Your task to perform on an android device: turn off location Image 0: 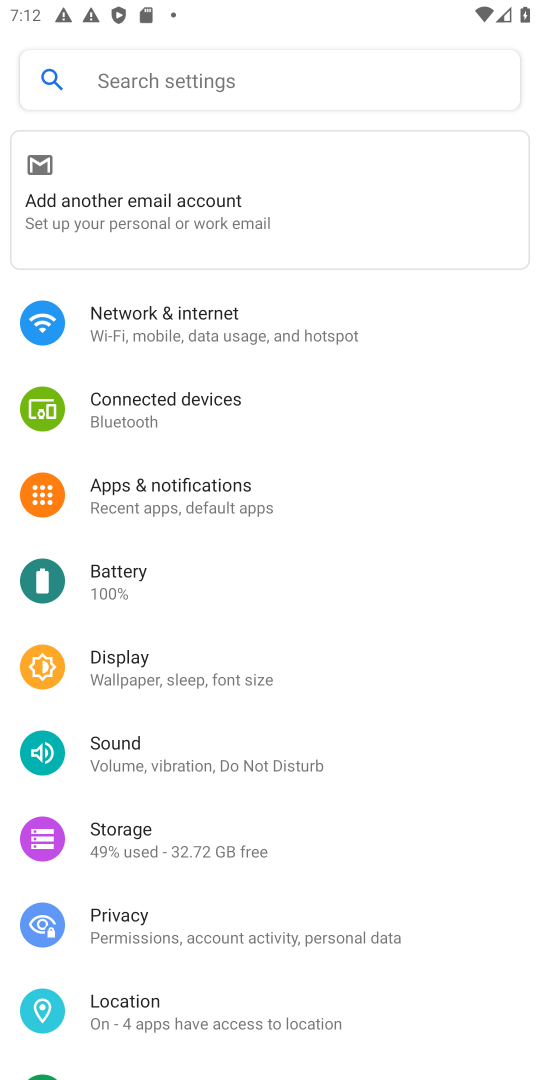
Step 0: click (139, 994)
Your task to perform on an android device: turn off location Image 1: 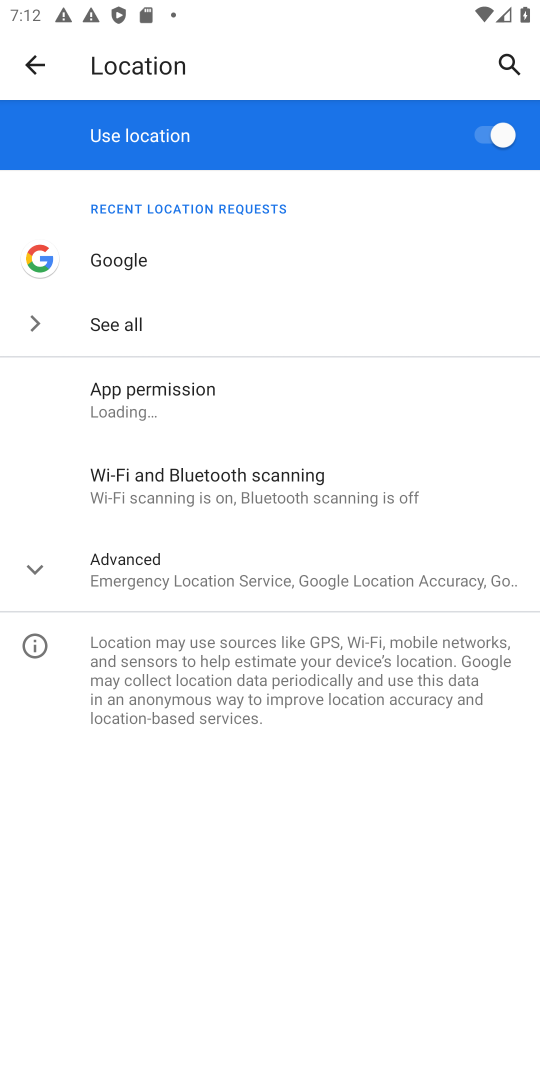
Step 1: click (489, 132)
Your task to perform on an android device: turn off location Image 2: 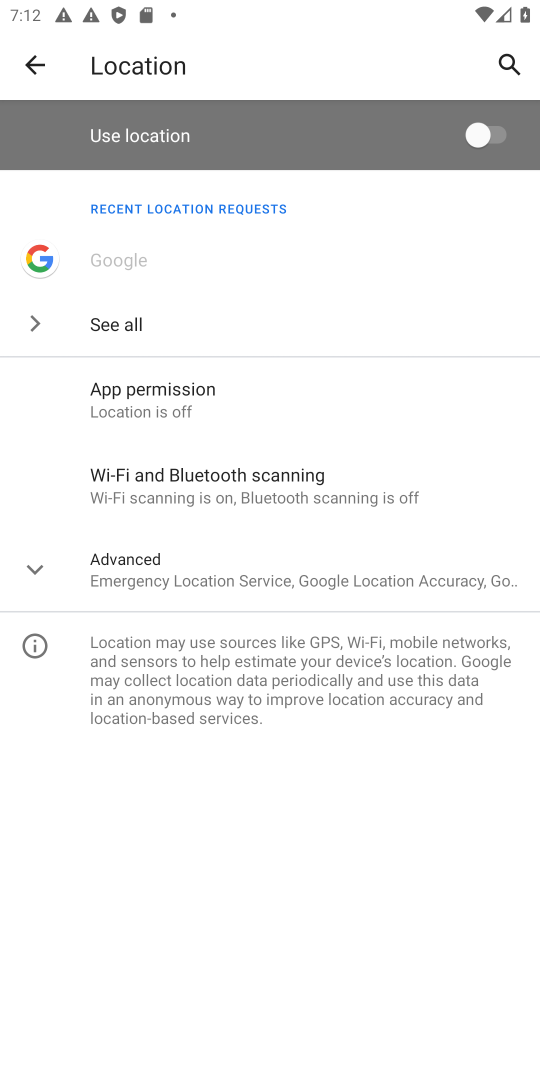
Step 2: task complete